Your task to perform on an android device: Search for "razer deathadder" on newegg.com, select the first entry, and add it to the cart. Image 0: 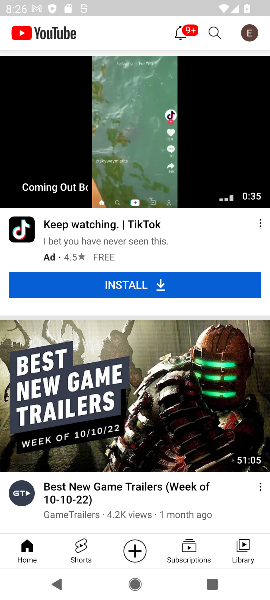
Step 0: press home button
Your task to perform on an android device: Search for "razer deathadder" on newegg.com, select the first entry, and add it to the cart. Image 1: 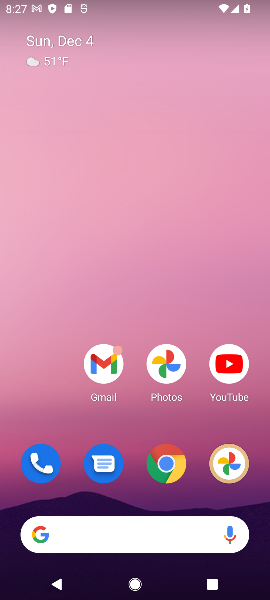
Step 1: click (150, 525)
Your task to perform on an android device: Search for "razer deathadder" on newegg.com, select the first entry, and add it to the cart. Image 2: 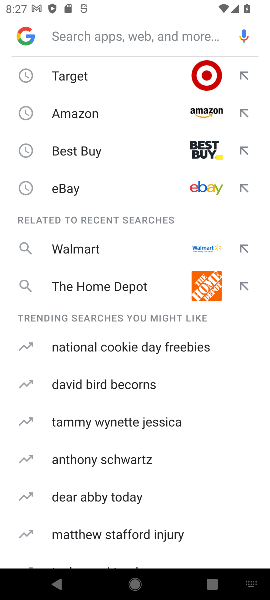
Step 2: type "razer deathadder"
Your task to perform on an android device: Search for "razer deathadder" on newegg.com, select the first entry, and add it to the cart. Image 3: 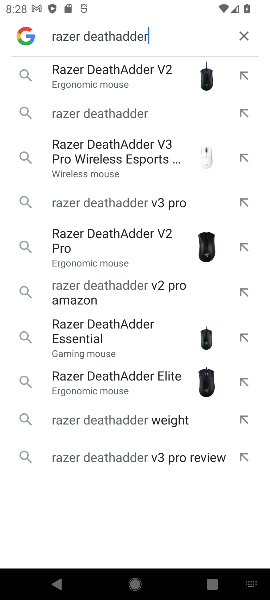
Step 3: click (86, 70)
Your task to perform on an android device: Search for "razer deathadder" on newegg.com, select the first entry, and add it to the cart. Image 4: 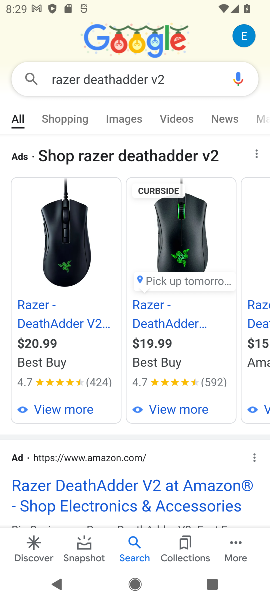
Step 4: task complete